Your task to perform on an android device: Open a new incognito tab in Chrome Image 0: 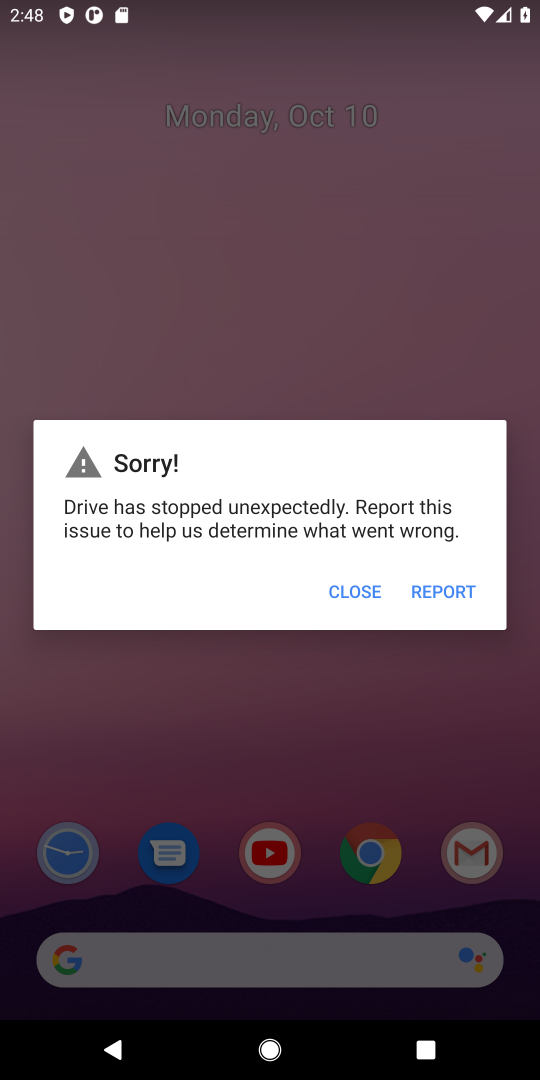
Step 0: press home button
Your task to perform on an android device: Open a new incognito tab in Chrome Image 1: 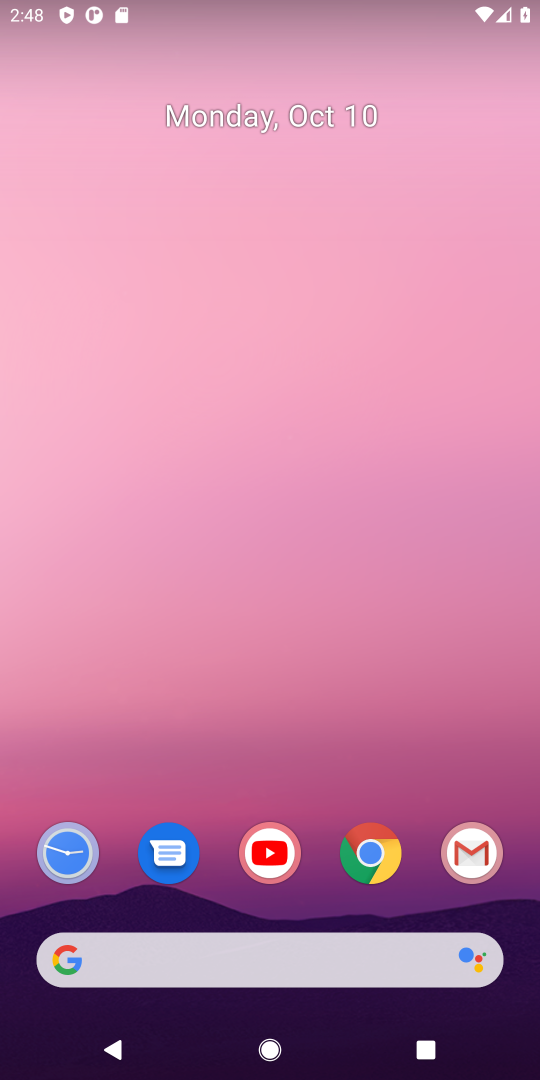
Step 1: click (356, 847)
Your task to perform on an android device: Open a new incognito tab in Chrome Image 2: 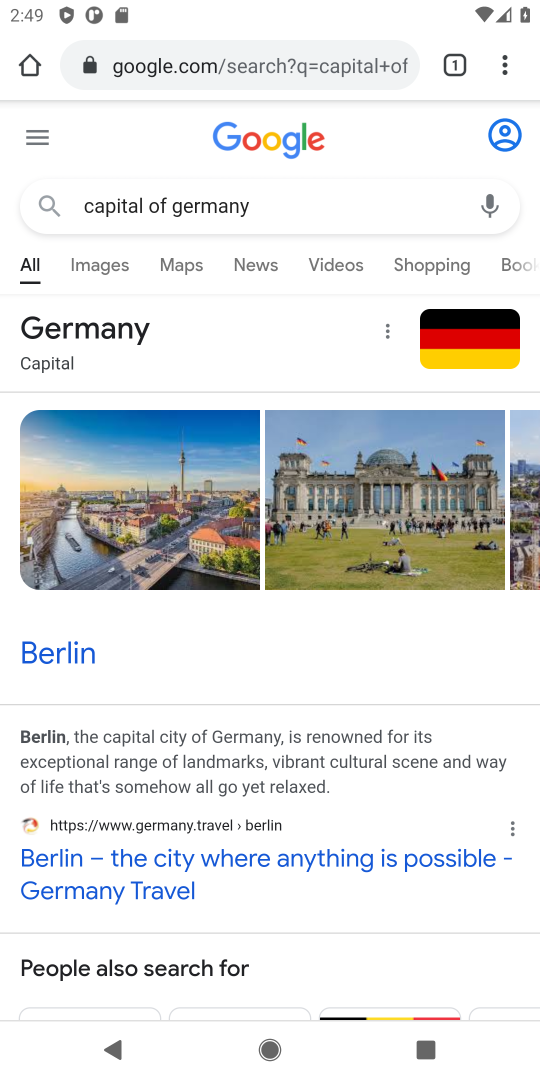
Step 2: click (507, 67)
Your task to perform on an android device: Open a new incognito tab in Chrome Image 3: 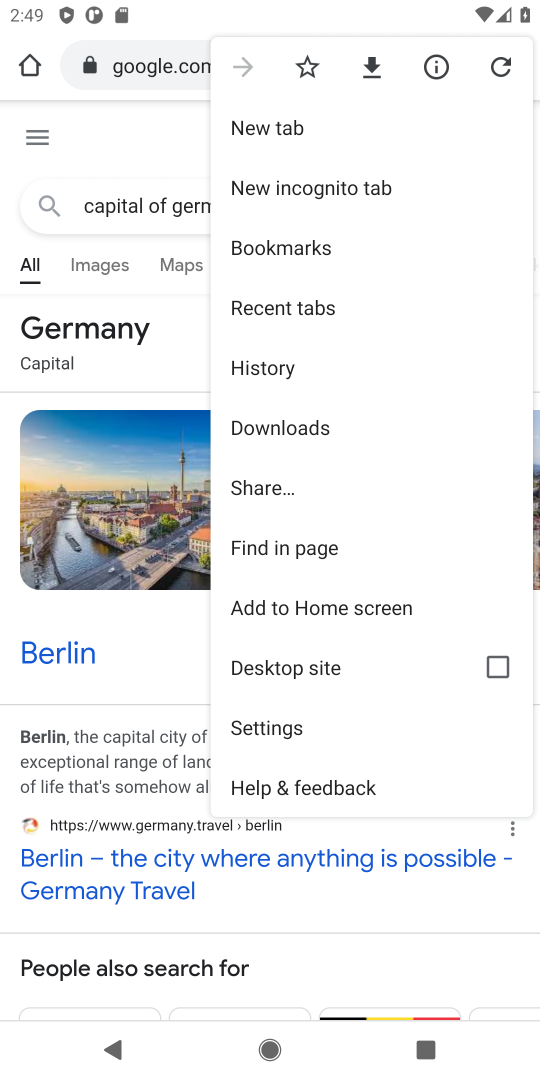
Step 3: click (381, 180)
Your task to perform on an android device: Open a new incognito tab in Chrome Image 4: 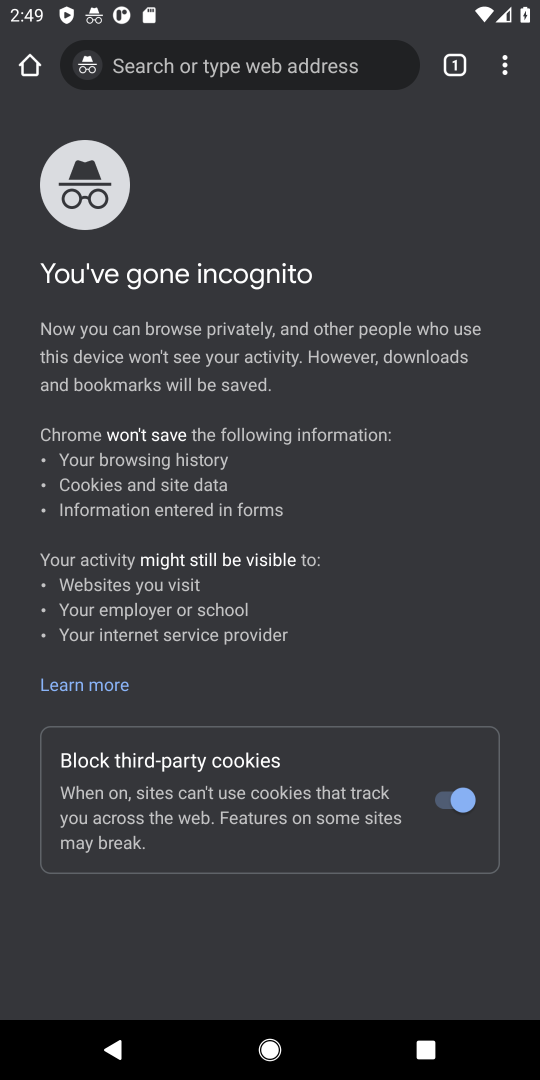
Step 4: task complete